Your task to perform on an android device: Open Reddit.com Image 0: 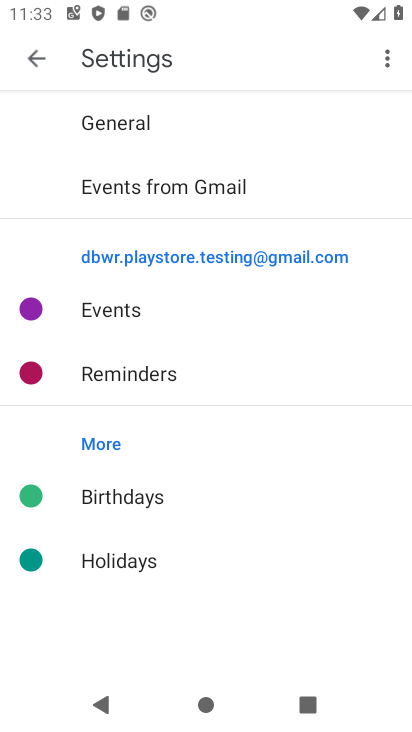
Step 0: press home button
Your task to perform on an android device: Open Reddit.com Image 1: 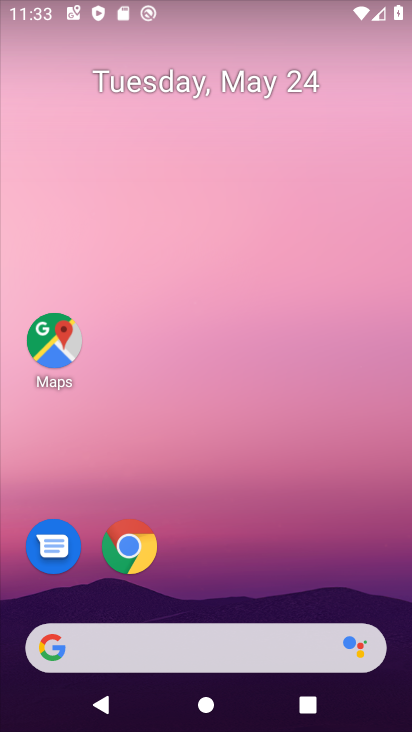
Step 1: click (143, 545)
Your task to perform on an android device: Open Reddit.com Image 2: 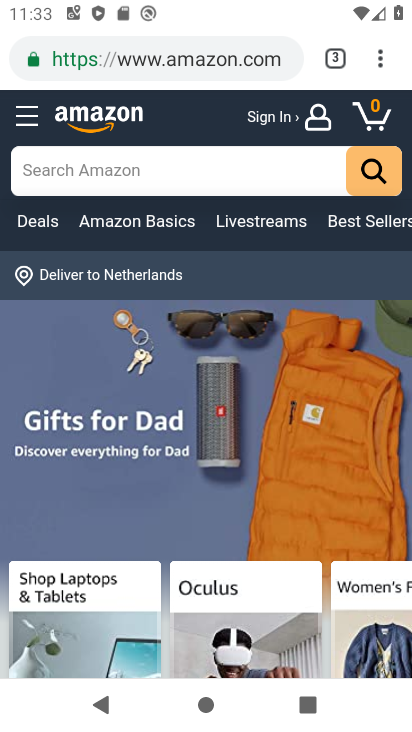
Step 2: click (184, 74)
Your task to perform on an android device: Open Reddit.com Image 3: 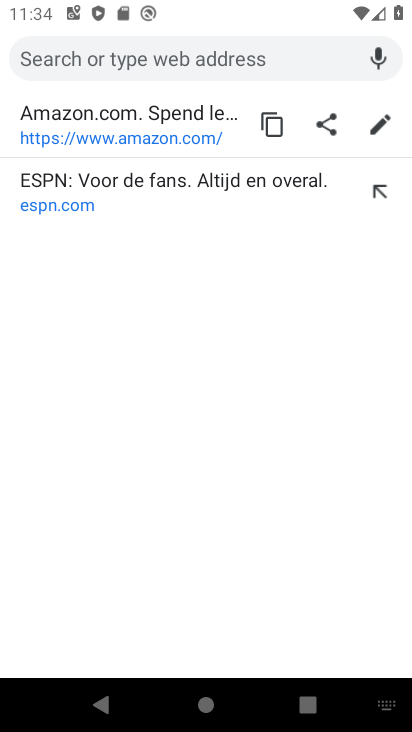
Step 3: type "Reddit.com"
Your task to perform on an android device: Open Reddit.com Image 4: 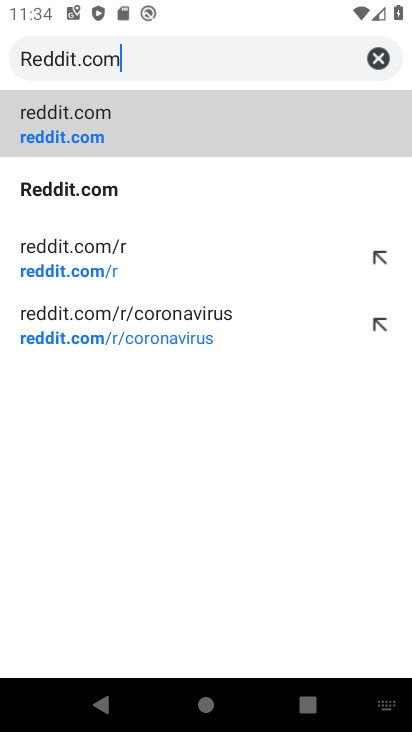
Step 4: click (61, 129)
Your task to perform on an android device: Open Reddit.com Image 5: 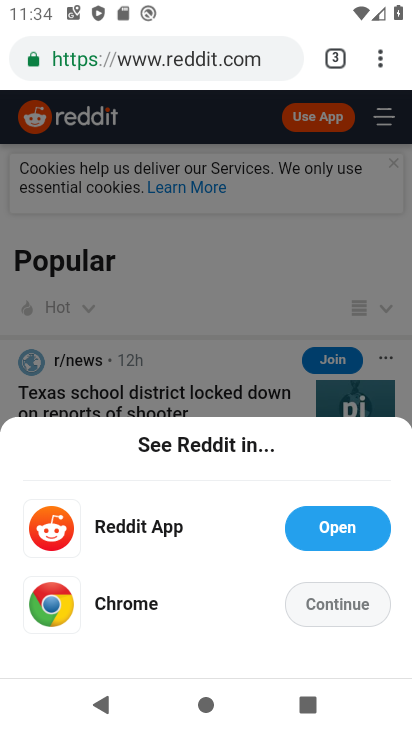
Step 5: click (355, 593)
Your task to perform on an android device: Open Reddit.com Image 6: 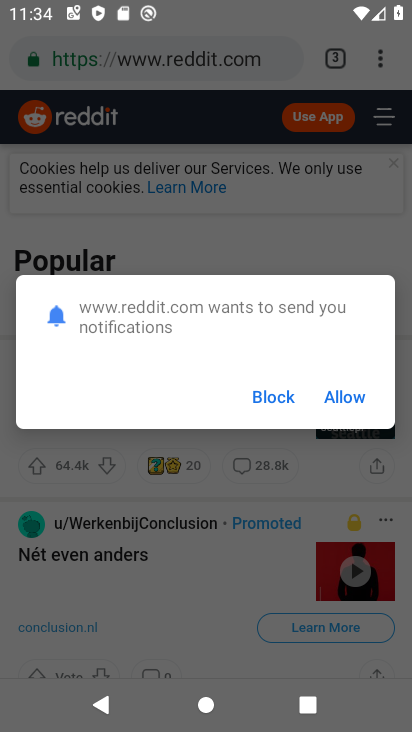
Step 6: click (276, 401)
Your task to perform on an android device: Open Reddit.com Image 7: 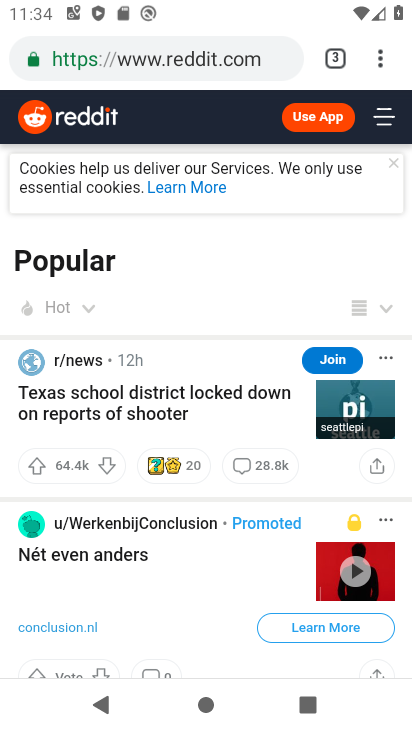
Step 7: task complete